Your task to perform on an android device: move an email to a new category in the gmail app Image 0: 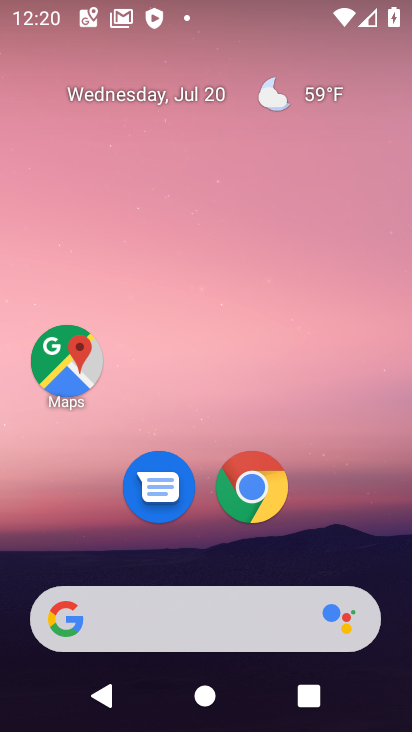
Step 0: drag from (132, 493) to (206, 0)
Your task to perform on an android device: move an email to a new category in the gmail app Image 1: 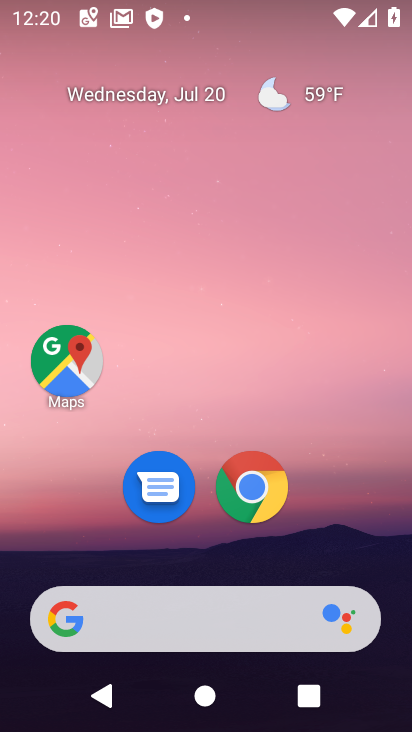
Step 1: drag from (90, 536) to (143, 6)
Your task to perform on an android device: move an email to a new category in the gmail app Image 2: 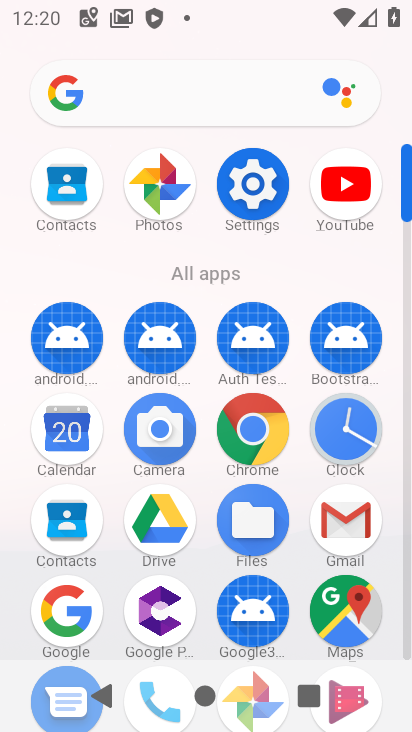
Step 2: click (349, 527)
Your task to perform on an android device: move an email to a new category in the gmail app Image 3: 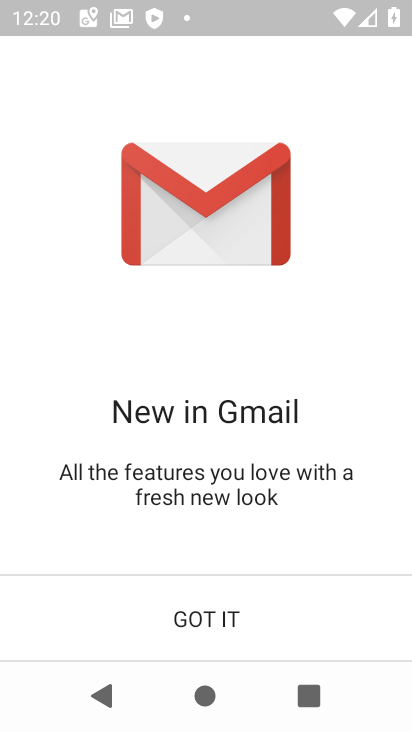
Step 3: click (268, 596)
Your task to perform on an android device: move an email to a new category in the gmail app Image 4: 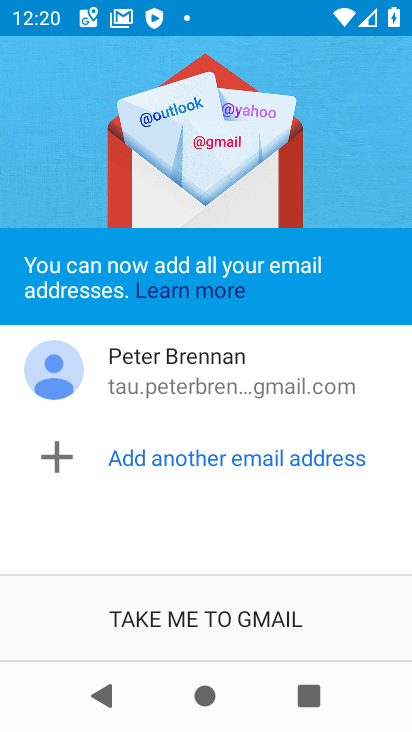
Step 4: click (237, 612)
Your task to perform on an android device: move an email to a new category in the gmail app Image 5: 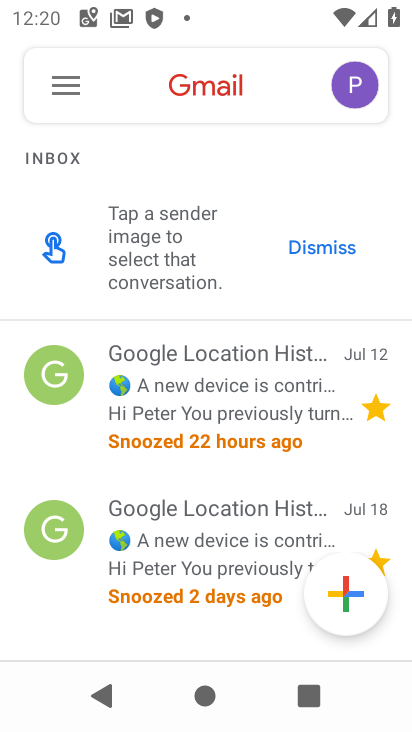
Step 5: click (61, 88)
Your task to perform on an android device: move an email to a new category in the gmail app Image 6: 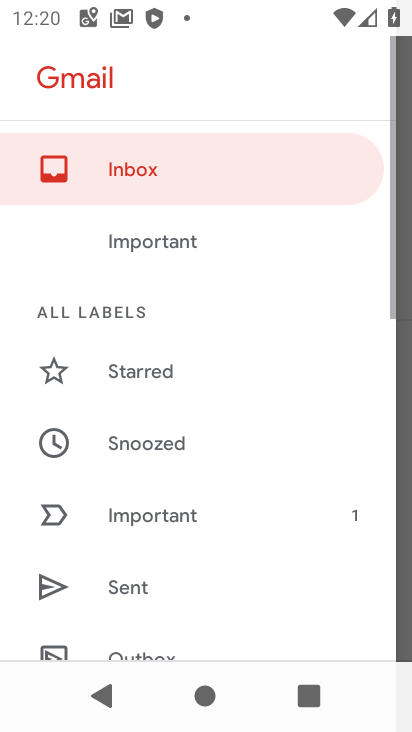
Step 6: drag from (143, 582) to (175, 195)
Your task to perform on an android device: move an email to a new category in the gmail app Image 7: 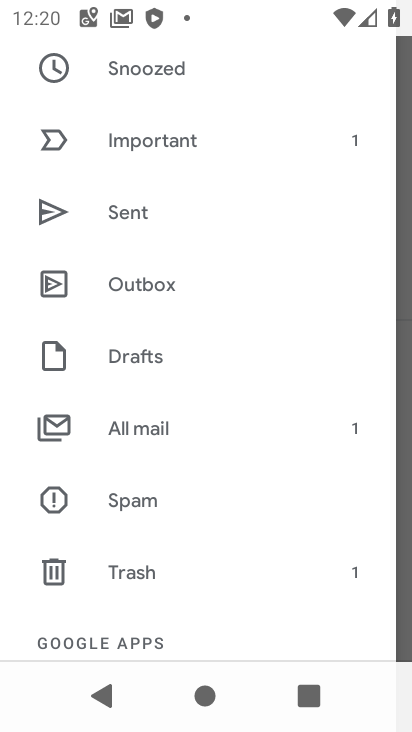
Step 7: click (133, 425)
Your task to perform on an android device: move an email to a new category in the gmail app Image 8: 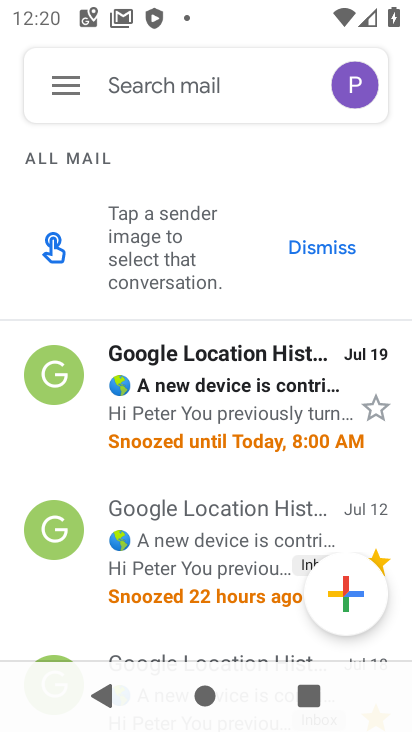
Step 8: click (239, 404)
Your task to perform on an android device: move an email to a new category in the gmail app Image 9: 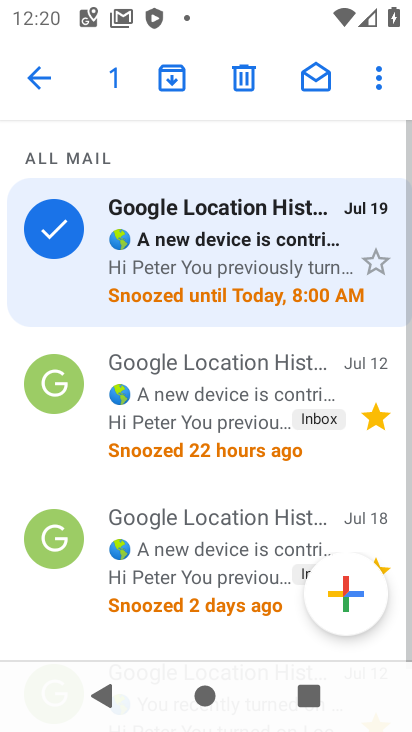
Step 9: click (378, 71)
Your task to perform on an android device: move an email to a new category in the gmail app Image 10: 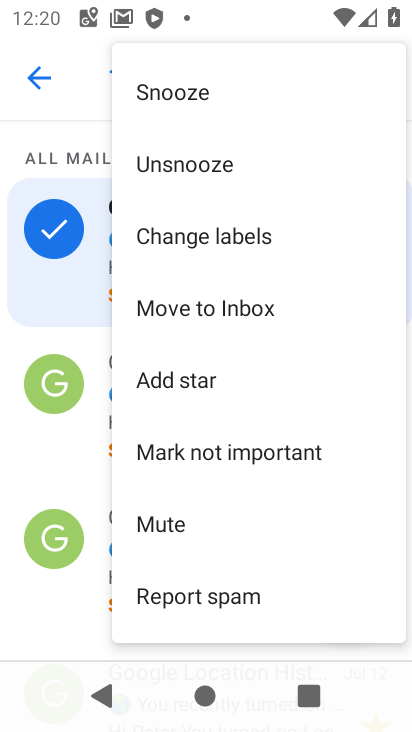
Step 10: click (218, 315)
Your task to perform on an android device: move an email to a new category in the gmail app Image 11: 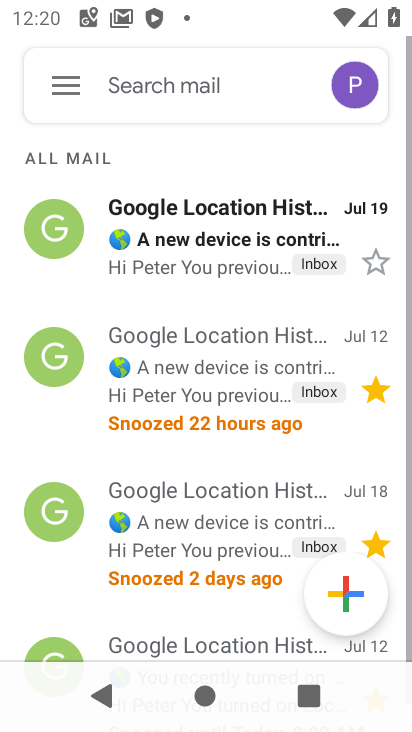
Step 11: task complete